Your task to perform on an android device: delete browsing data in the chrome app Image 0: 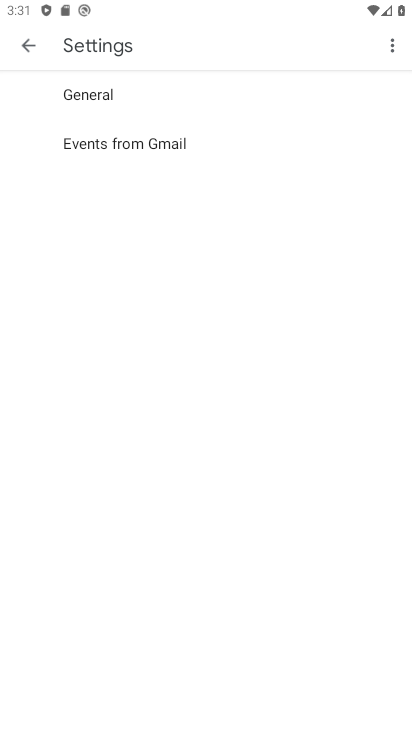
Step 0: press home button
Your task to perform on an android device: delete browsing data in the chrome app Image 1: 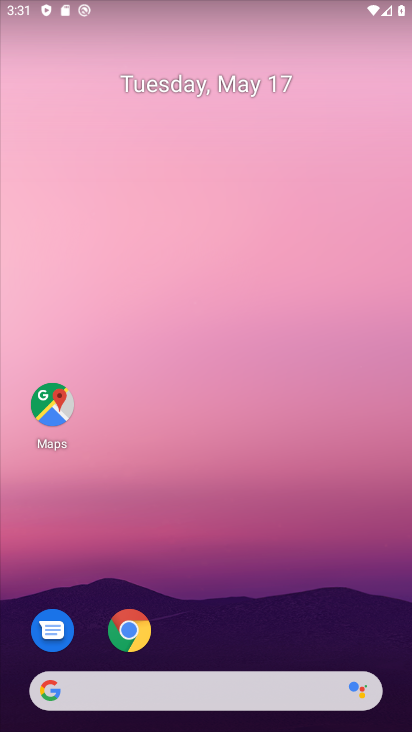
Step 1: drag from (209, 663) to (284, 164)
Your task to perform on an android device: delete browsing data in the chrome app Image 2: 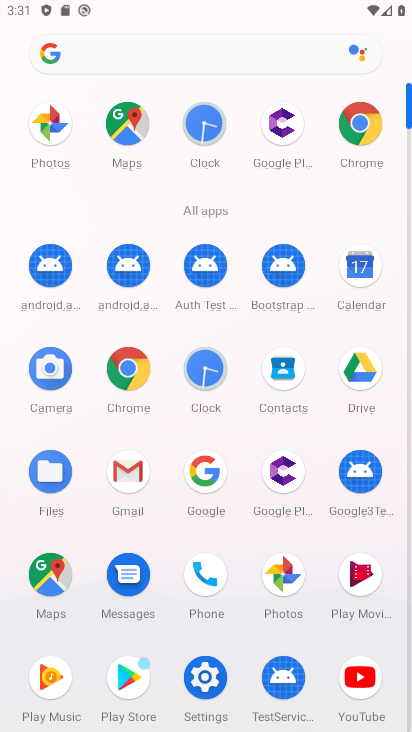
Step 2: click (141, 381)
Your task to perform on an android device: delete browsing data in the chrome app Image 3: 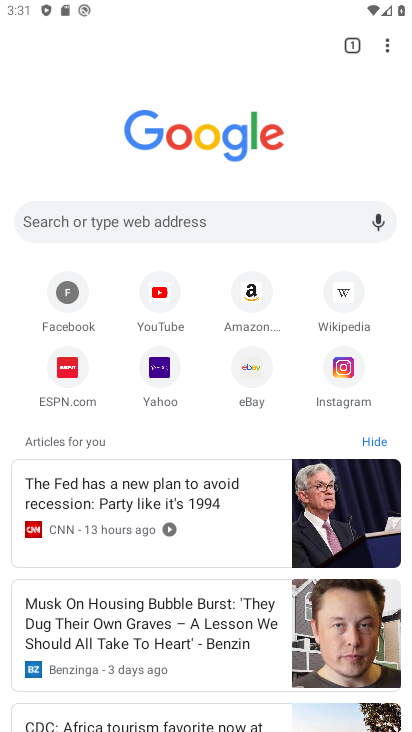
Step 3: drag from (392, 52) to (287, 374)
Your task to perform on an android device: delete browsing data in the chrome app Image 4: 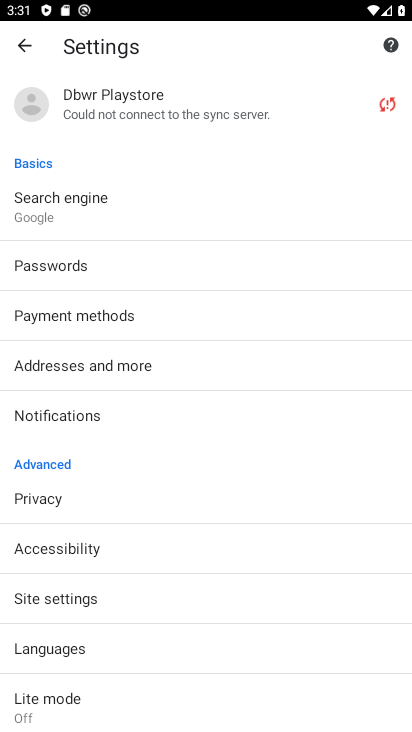
Step 4: click (219, 511)
Your task to perform on an android device: delete browsing data in the chrome app Image 5: 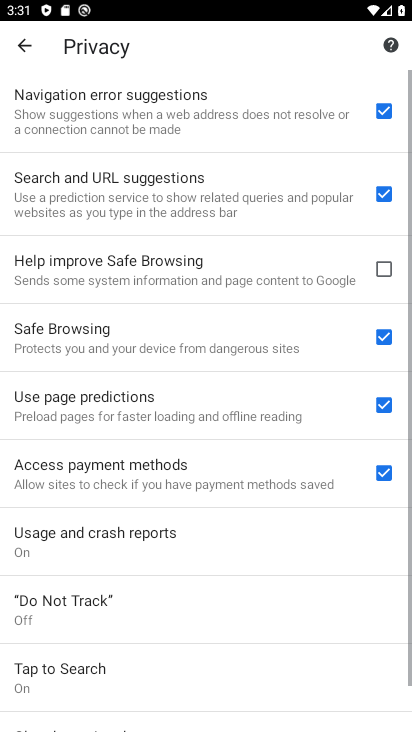
Step 5: drag from (155, 624) to (319, 192)
Your task to perform on an android device: delete browsing data in the chrome app Image 6: 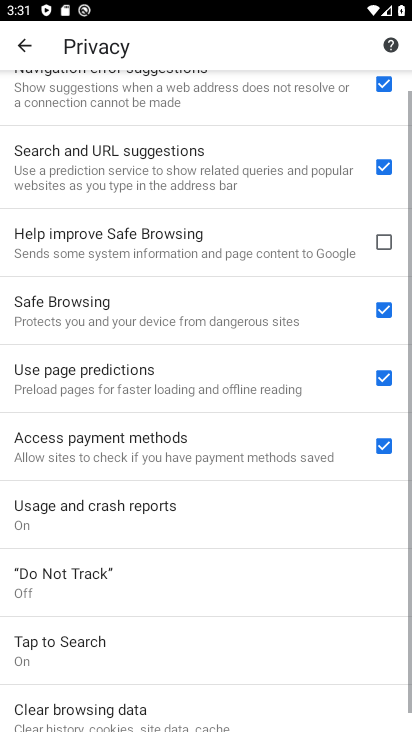
Step 6: click (178, 694)
Your task to perform on an android device: delete browsing data in the chrome app Image 7: 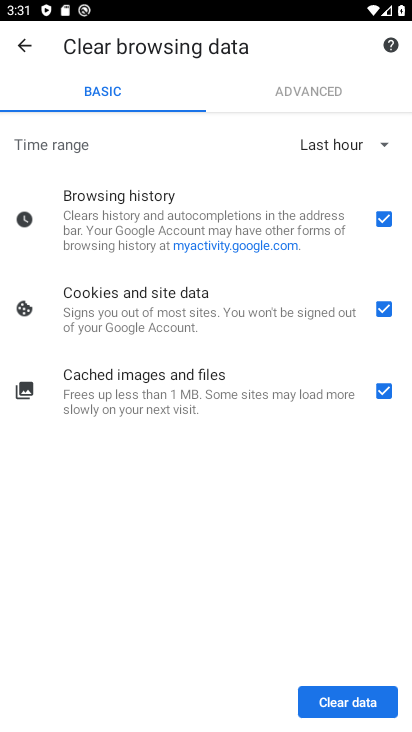
Step 7: click (385, 713)
Your task to perform on an android device: delete browsing data in the chrome app Image 8: 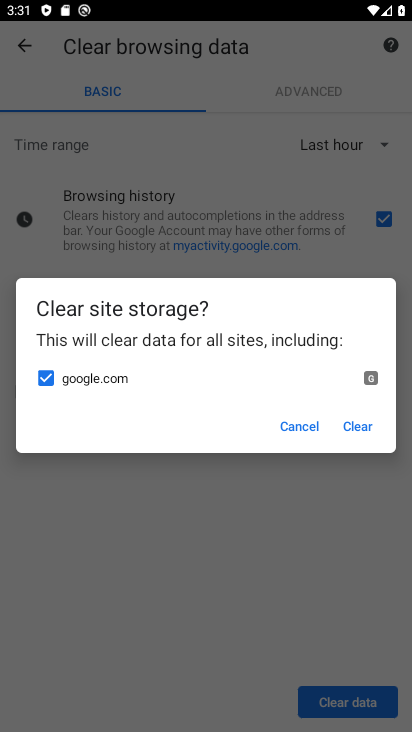
Step 8: click (375, 442)
Your task to perform on an android device: delete browsing data in the chrome app Image 9: 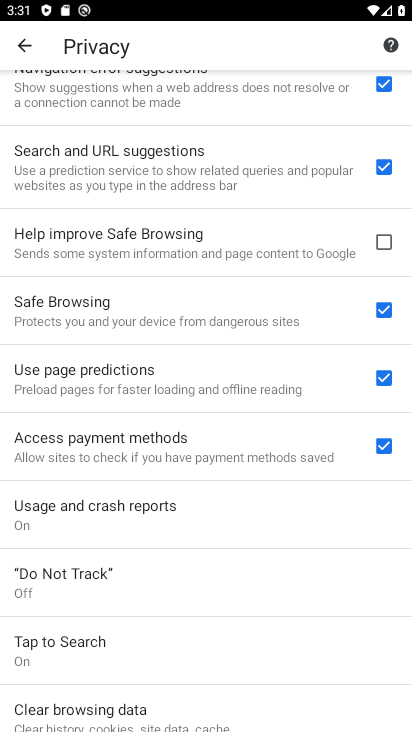
Step 9: task complete